Your task to perform on an android device: turn off priority inbox in the gmail app Image 0: 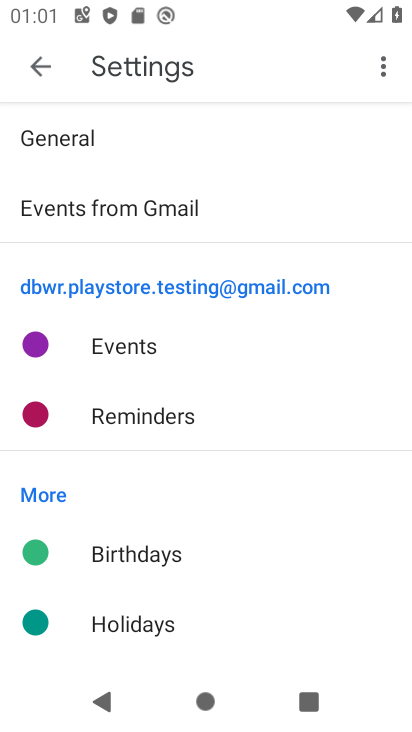
Step 0: press home button
Your task to perform on an android device: turn off priority inbox in the gmail app Image 1: 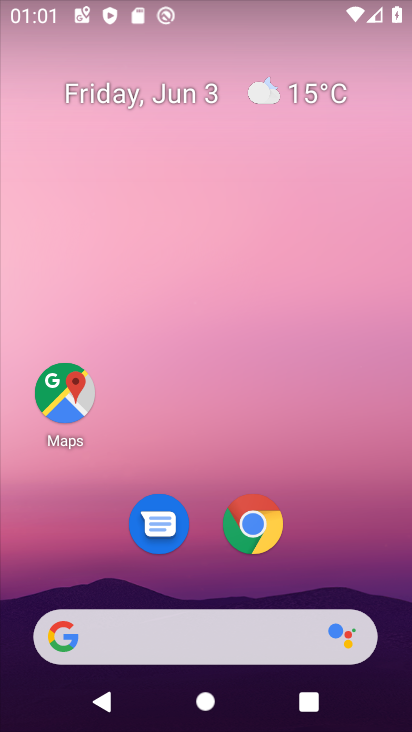
Step 1: drag from (212, 491) to (235, 15)
Your task to perform on an android device: turn off priority inbox in the gmail app Image 2: 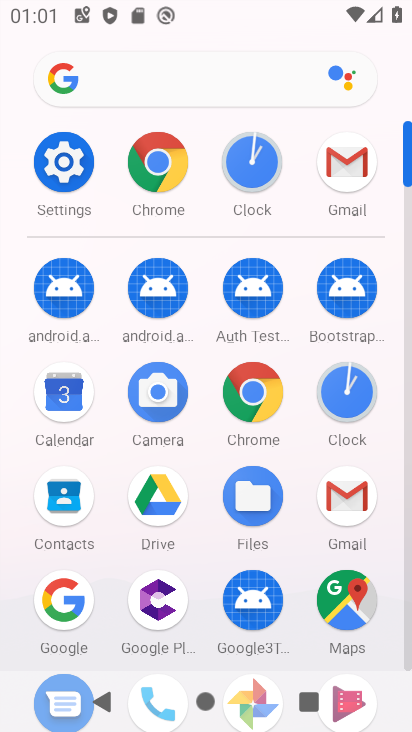
Step 2: click (339, 167)
Your task to perform on an android device: turn off priority inbox in the gmail app Image 3: 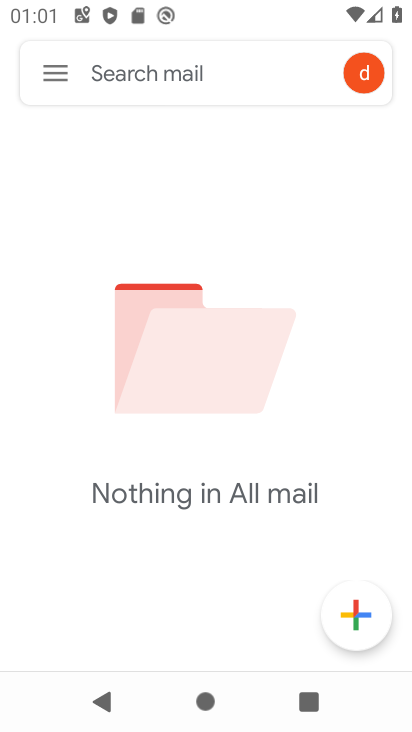
Step 3: click (54, 62)
Your task to perform on an android device: turn off priority inbox in the gmail app Image 4: 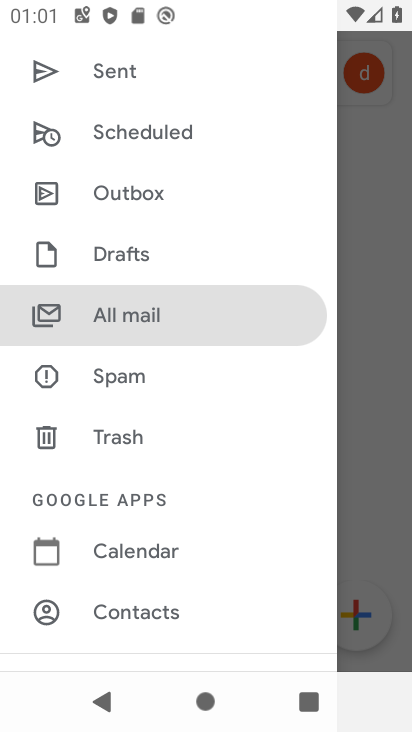
Step 4: drag from (160, 461) to (195, 263)
Your task to perform on an android device: turn off priority inbox in the gmail app Image 5: 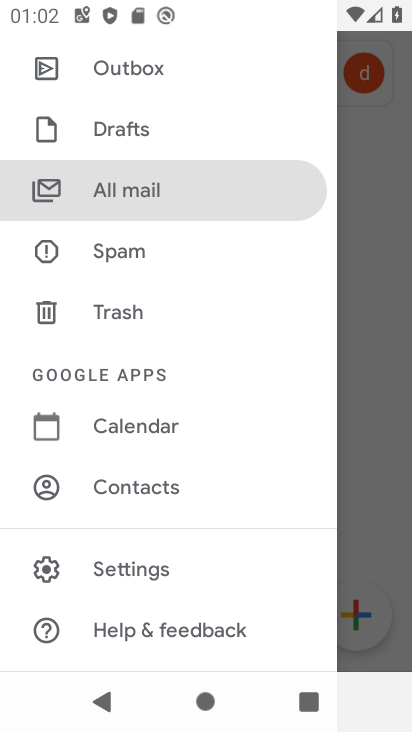
Step 5: click (152, 557)
Your task to perform on an android device: turn off priority inbox in the gmail app Image 6: 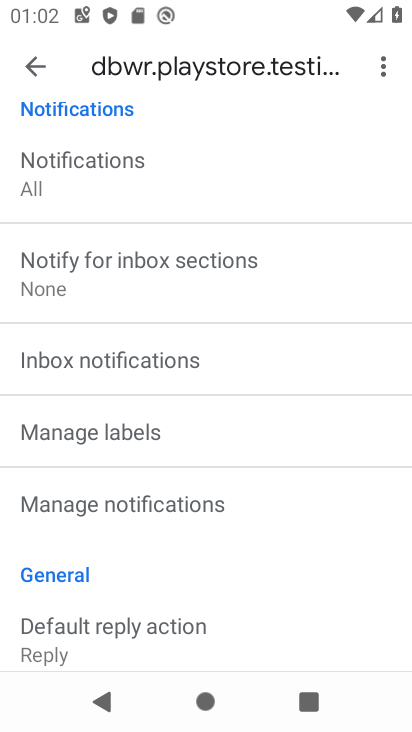
Step 6: drag from (200, 175) to (199, 676)
Your task to perform on an android device: turn off priority inbox in the gmail app Image 7: 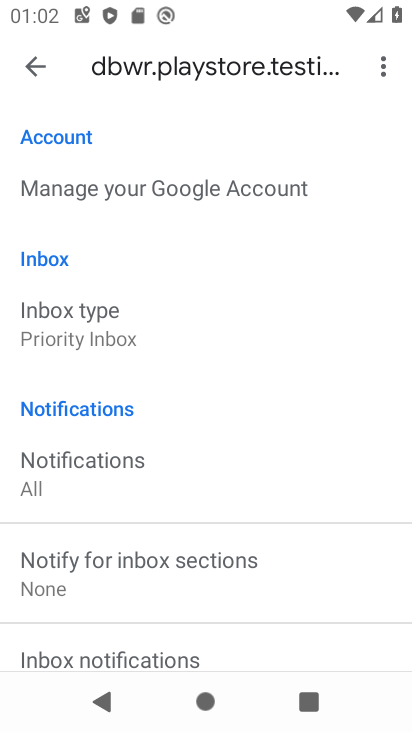
Step 7: click (92, 313)
Your task to perform on an android device: turn off priority inbox in the gmail app Image 8: 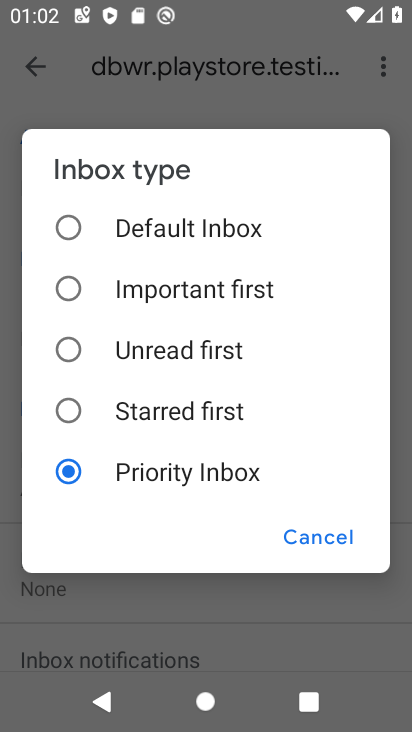
Step 8: click (65, 217)
Your task to perform on an android device: turn off priority inbox in the gmail app Image 9: 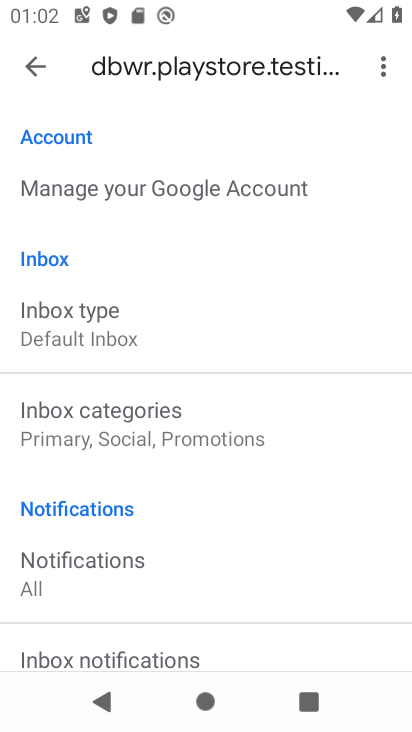
Step 9: task complete